Your task to perform on an android device: check data usage Image 0: 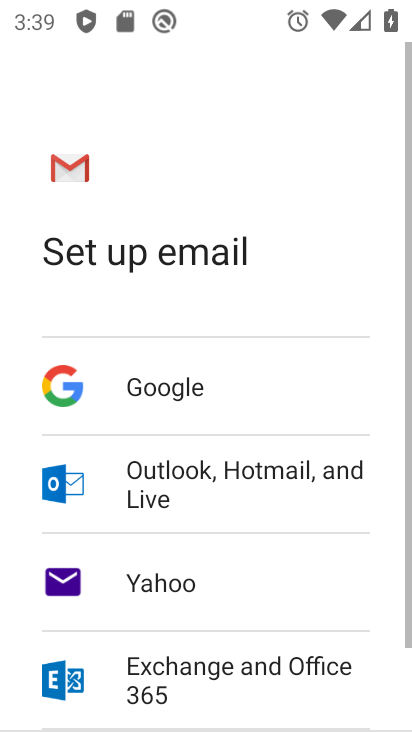
Step 0: press home button
Your task to perform on an android device: check data usage Image 1: 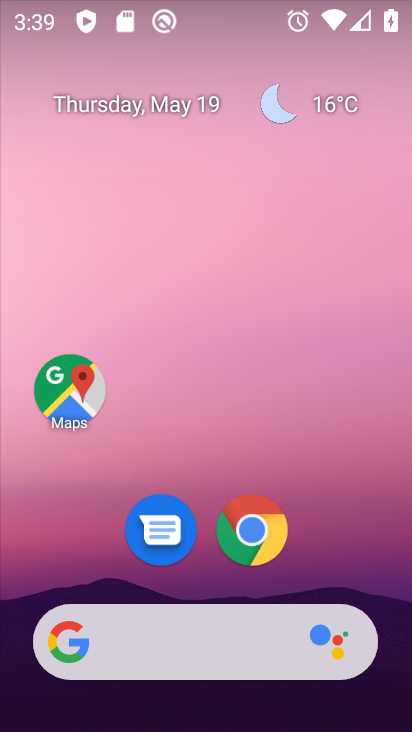
Step 1: drag from (368, 529) to (343, 84)
Your task to perform on an android device: check data usage Image 2: 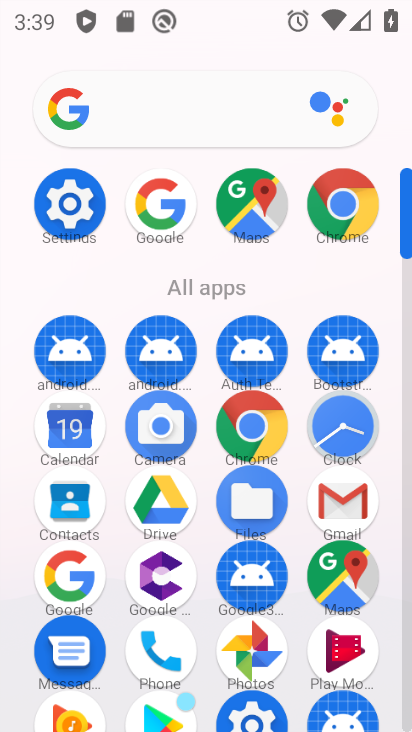
Step 2: click (92, 211)
Your task to perform on an android device: check data usage Image 3: 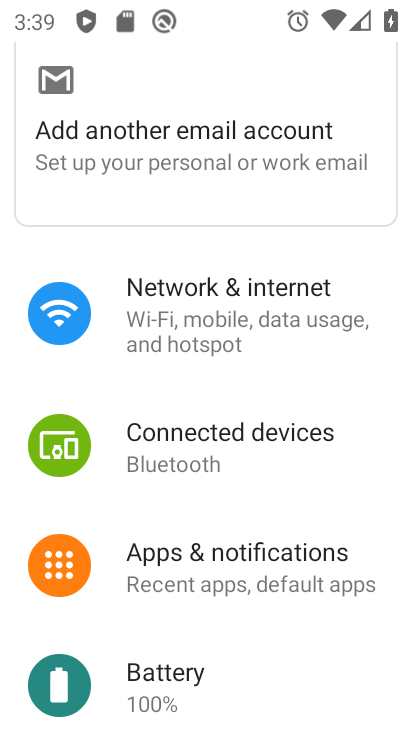
Step 3: click (220, 349)
Your task to perform on an android device: check data usage Image 4: 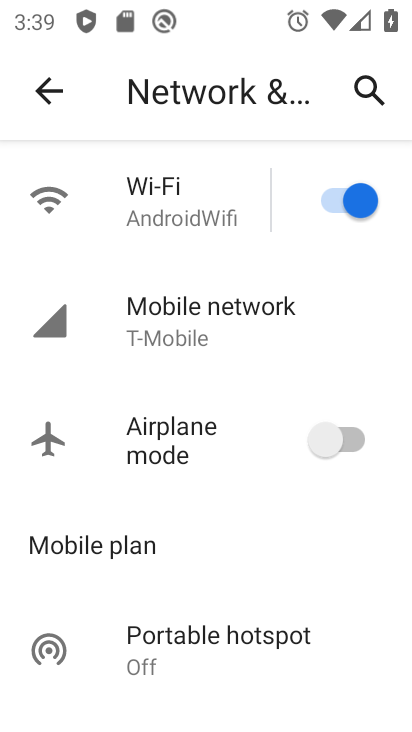
Step 4: click (166, 323)
Your task to perform on an android device: check data usage Image 5: 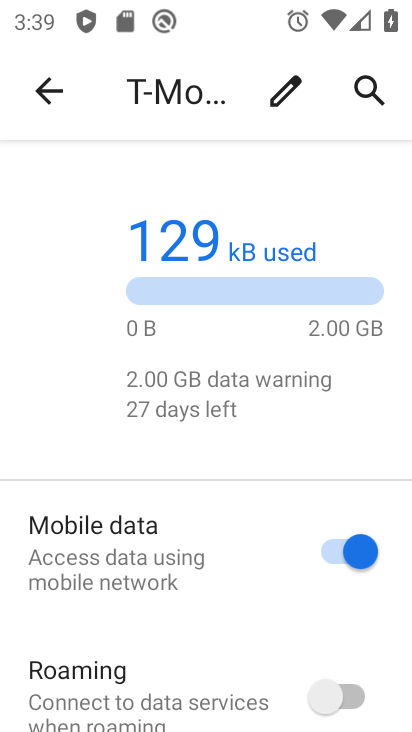
Step 5: drag from (186, 673) to (206, 339)
Your task to perform on an android device: check data usage Image 6: 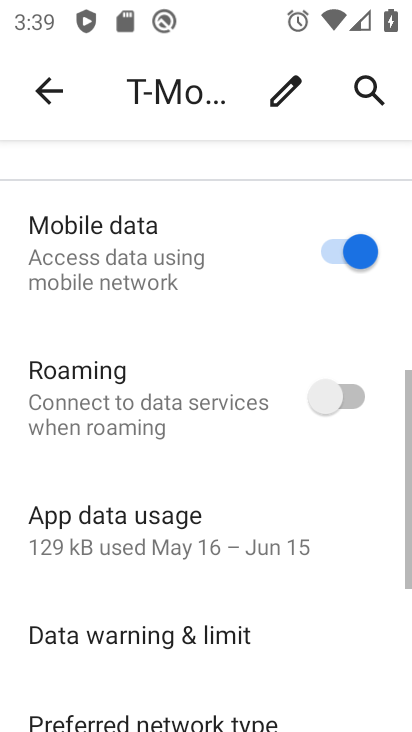
Step 6: click (207, 544)
Your task to perform on an android device: check data usage Image 7: 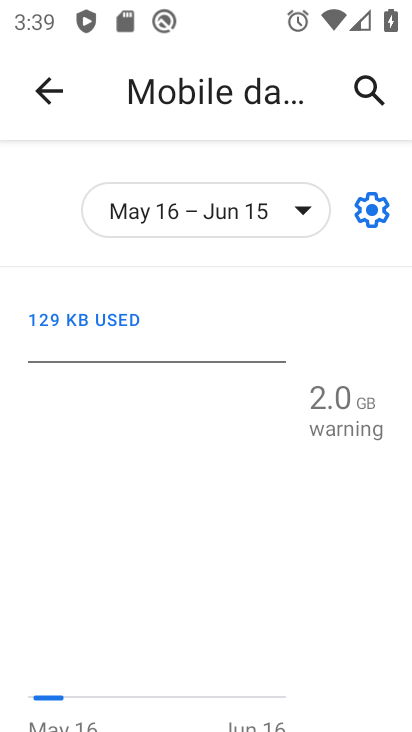
Step 7: task complete